Your task to perform on an android device: Open the calendar app, open the side menu, and click the "Day" option Image 0: 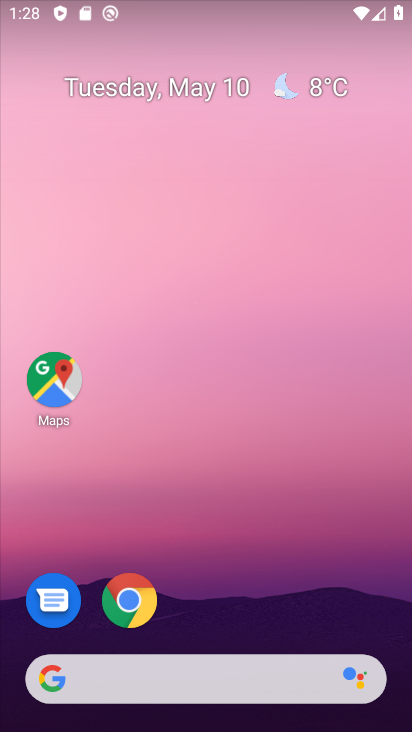
Step 0: drag from (197, 633) to (225, 157)
Your task to perform on an android device: Open the calendar app, open the side menu, and click the "Day" option Image 1: 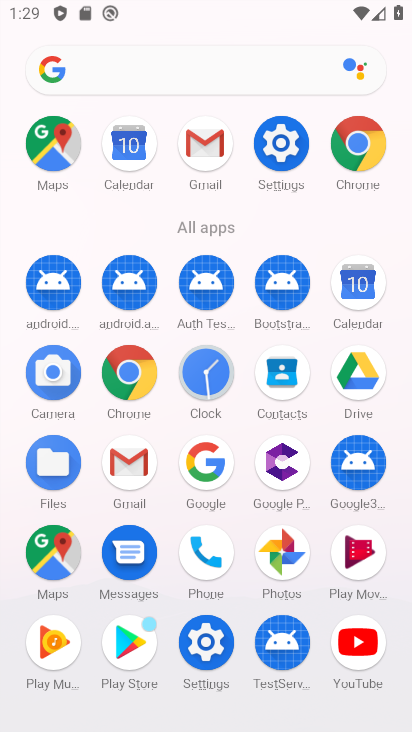
Step 1: click (354, 281)
Your task to perform on an android device: Open the calendar app, open the side menu, and click the "Day" option Image 2: 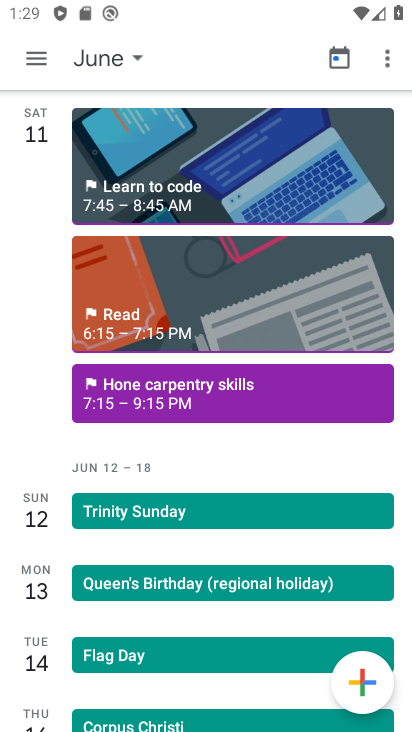
Step 2: click (28, 51)
Your task to perform on an android device: Open the calendar app, open the side menu, and click the "Day" option Image 3: 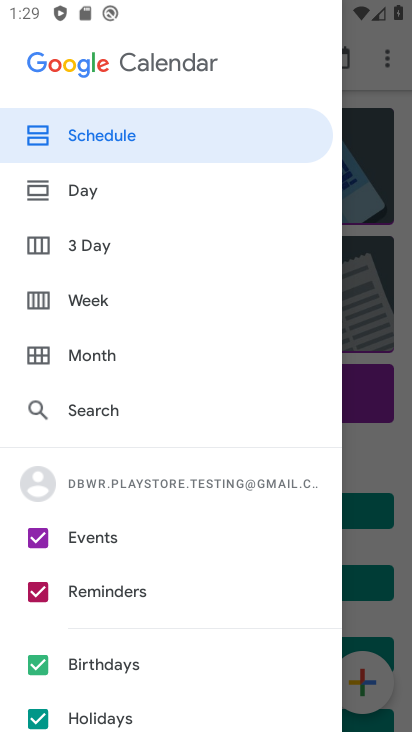
Step 3: click (62, 182)
Your task to perform on an android device: Open the calendar app, open the side menu, and click the "Day" option Image 4: 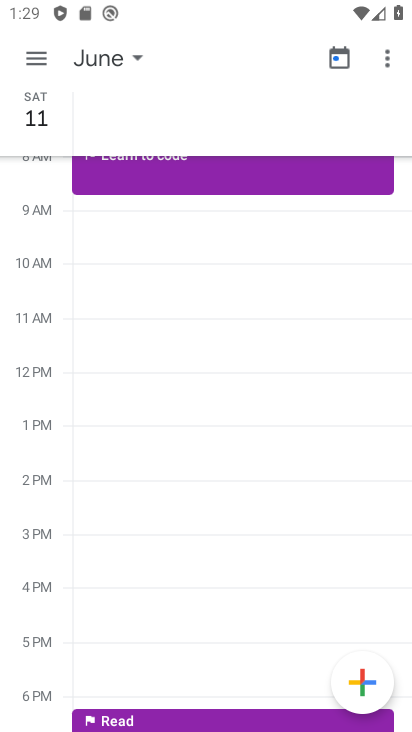
Step 4: click (57, 114)
Your task to perform on an android device: Open the calendar app, open the side menu, and click the "Day" option Image 5: 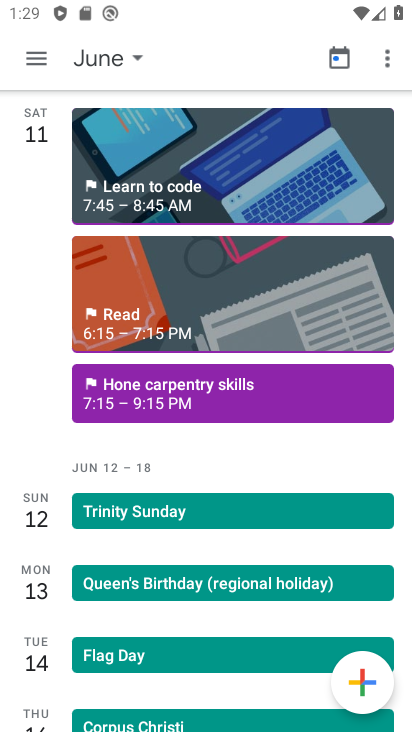
Step 5: click (37, 62)
Your task to perform on an android device: Open the calendar app, open the side menu, and click the "Day" option Image 6: 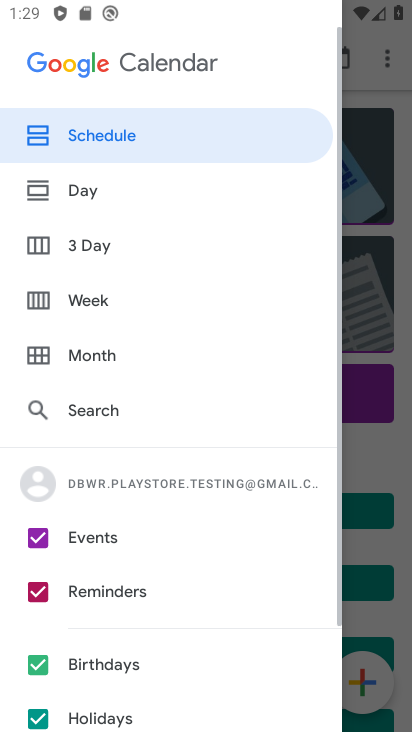
Step 6: click (71, 184)
Your task to perform on an android device: Open the calendar app, open the side menu, and click the "Day" option Image 7: 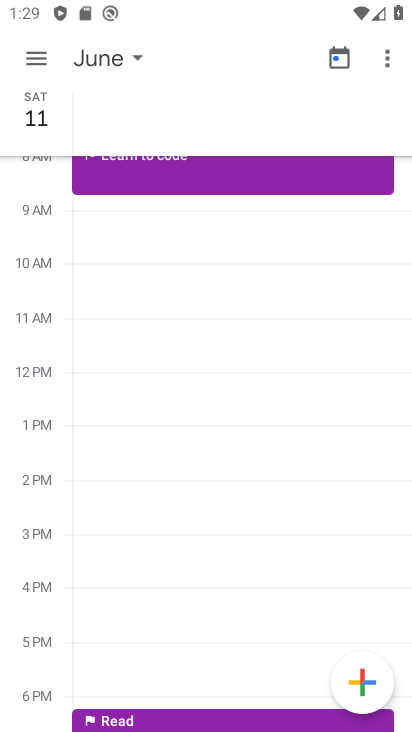
Step 7: task complete